Your task to perform on an android device: Show the shopping cart on target. Search for lenovo thinkpad on target, select the first entry, add it to the cart, then select checkout. Image 0: 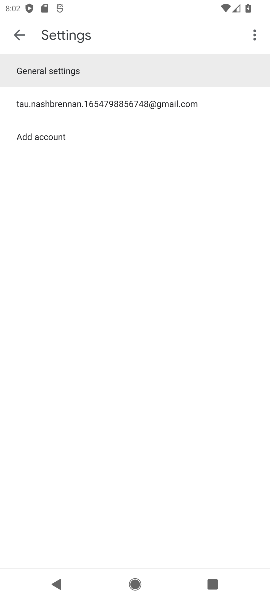
Step 0: task impossible